Your task to perform on an android device: Go to privacy settings Image 0: 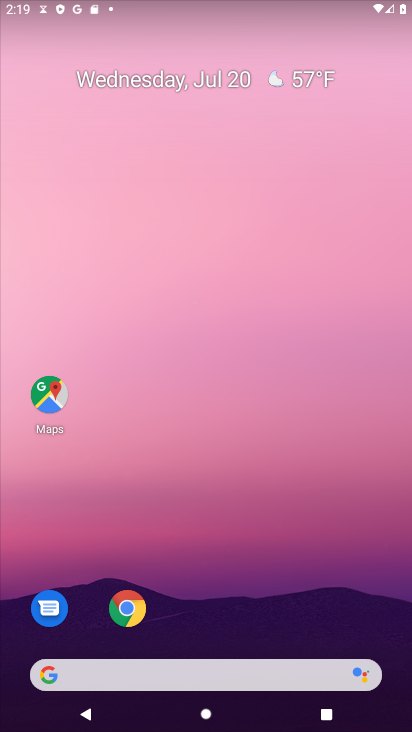
Step 0: press home button
Your task to perform on an android device: Go to privacy settings Image 1: 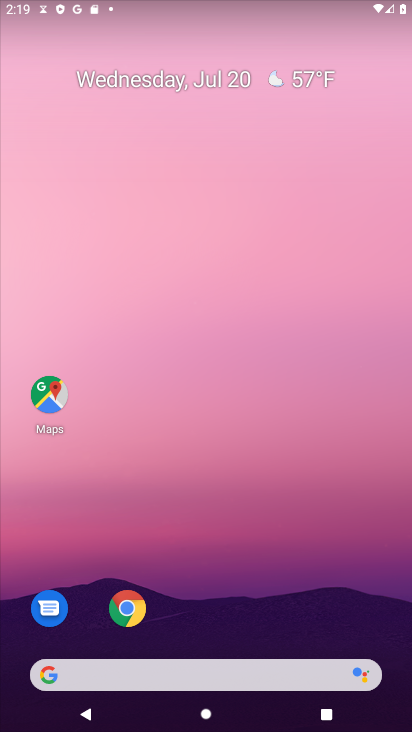
Step 1: drag from (184, 450) to (219, 89)
Your task to perform on an android device: Go to privacy settings Image 2: 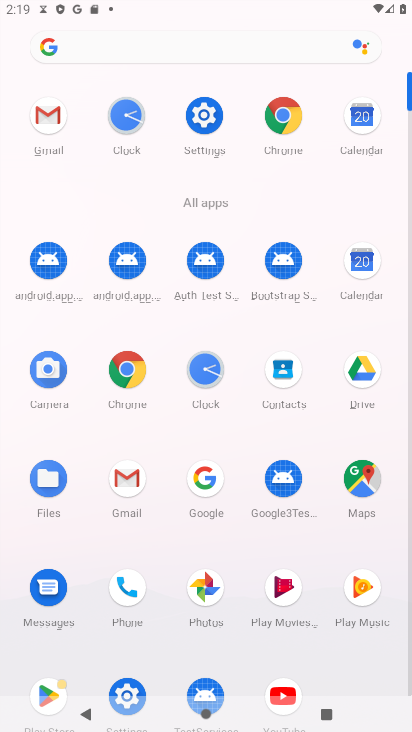
Step 2: click (123, 689)
Your task to perform on an android device: Go to privacy settings Image 3: 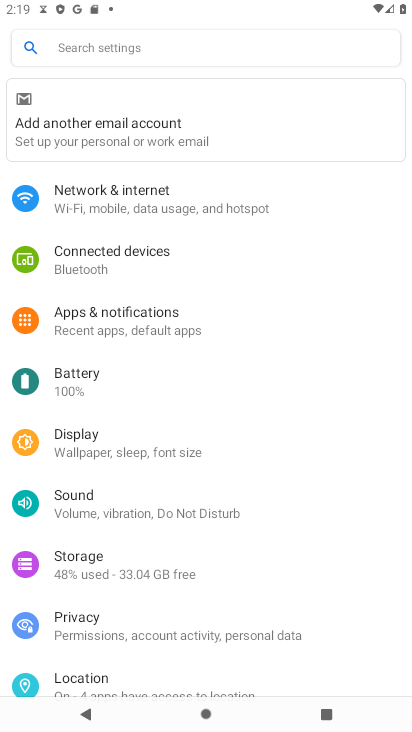
Step 3: click (58, 621)
Your task to perform on an android device: Go to privacy settings Image 4: 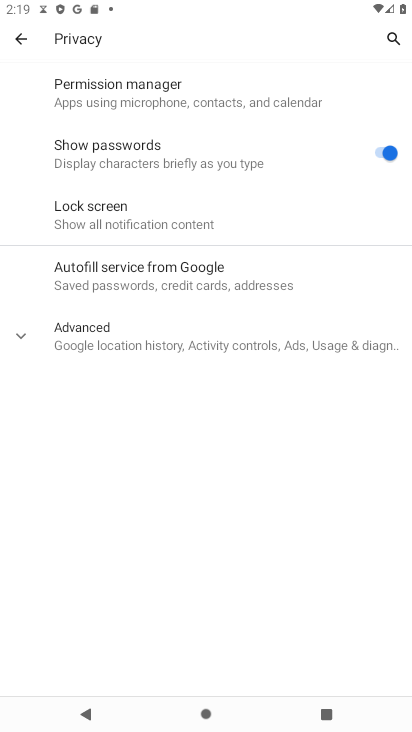
Step 4: task complete